Your task to perform on an android device: turn on priority inbox in the gmail app Image 0: 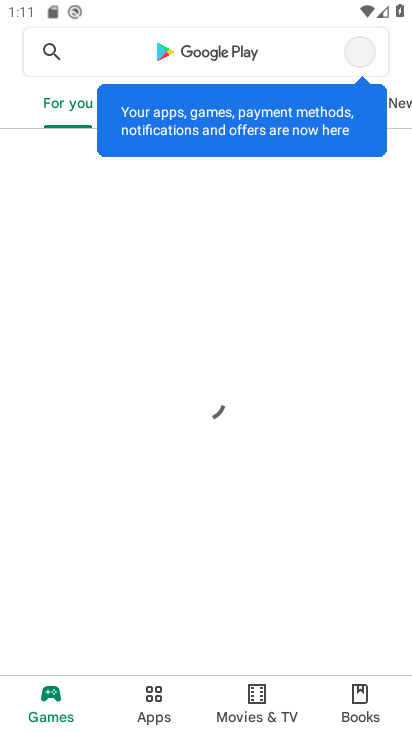
Step 0: press home button
Your task to perform on an android device: turn on priority inbox in the gmail app Image 1: 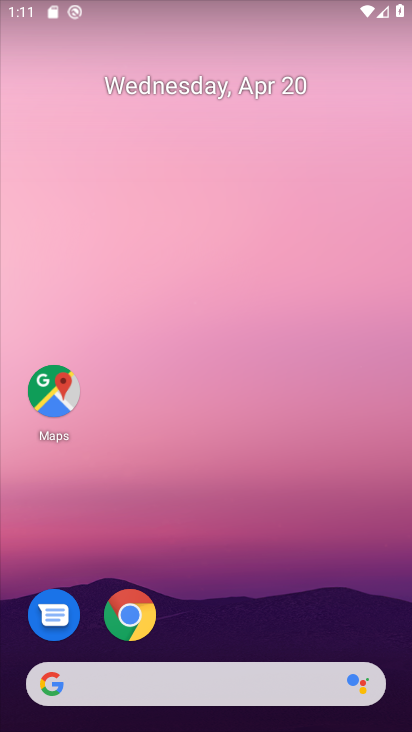
Step 1: drag from (251, 486) to (282, 70)
Your task to perform on an android device: turn on priority inbox in the gmail app Image 2: 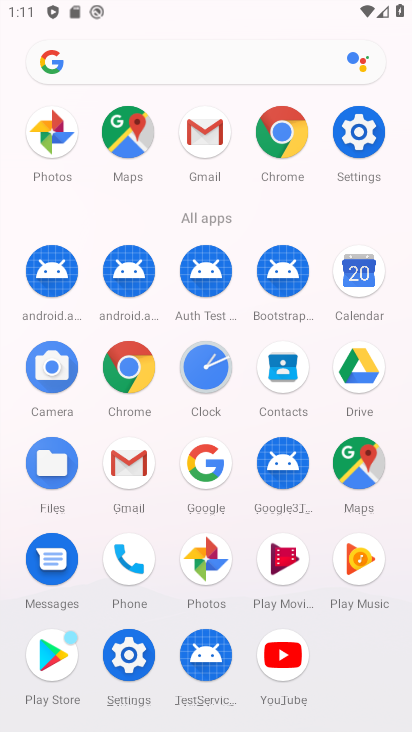
Step 2: click (128, 459)
Your task to perform on an android device: turn on priority inbox in the gmail app Image 3: 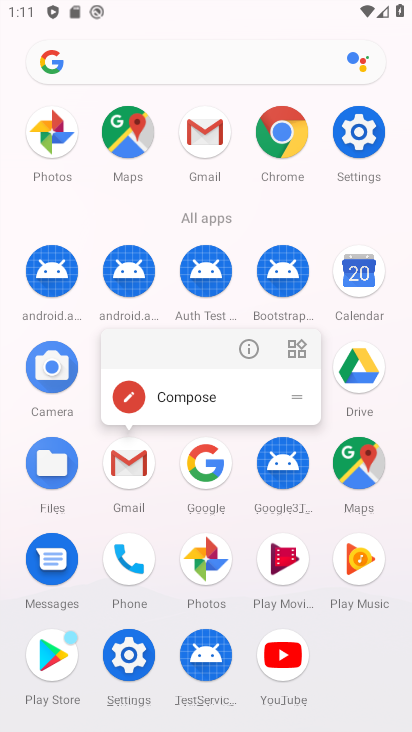
Step 3: click (124, 437)
Your task to perform on an android device: turn on priority inbox in the gmail app Image 4: 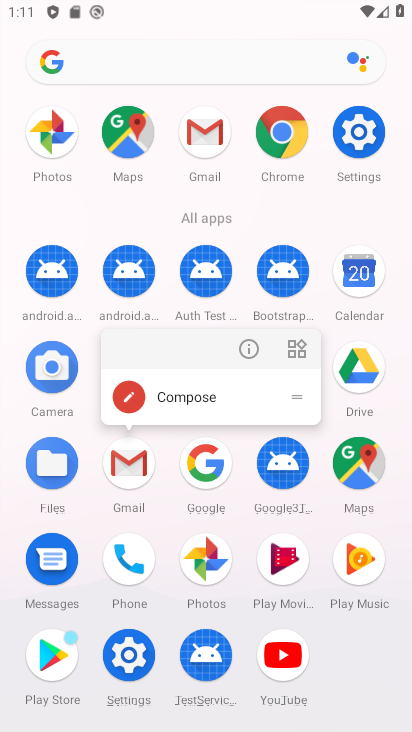
Step 4: click (130, 433)
Your task to perform on an android device: turn on priority inbox in the gmail app Image 5: 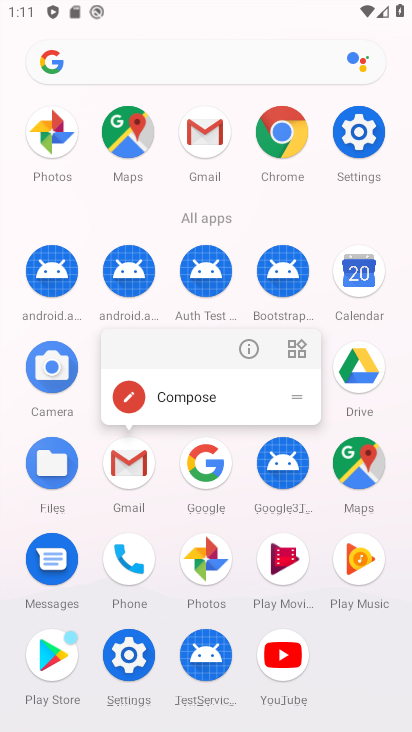
Step 5: click (135, 459)
Your task to perform on an android device: turn on priority inbox in the gmail app Image 6: 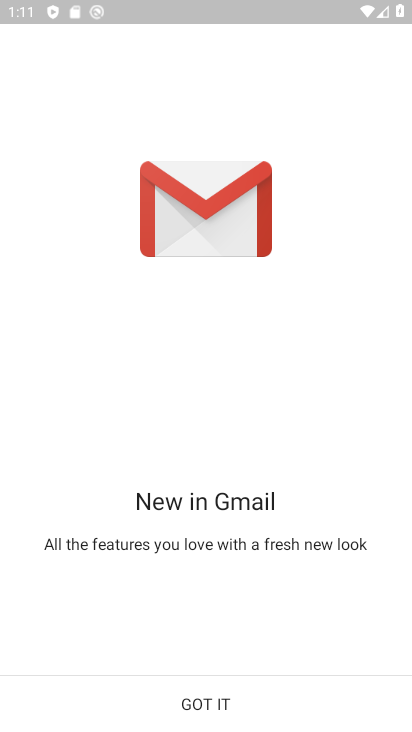
Step 6: click (245, 707)
Your task to perform on an android device: turn on priority inbox in the gmail app Image 7: 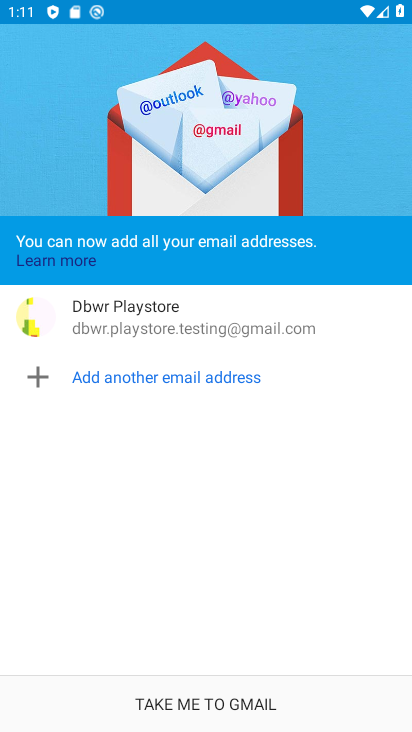
Step 7: click (227, 697)
Your task to perform on an android device: turn on priority inbox in the gmail app Image 8: 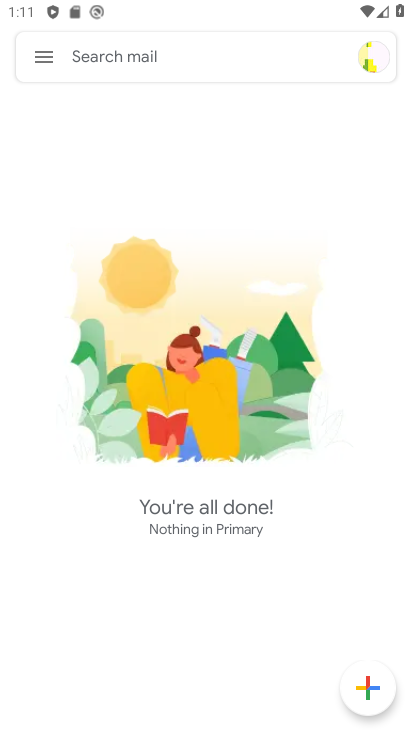
Step 8: click (44, 63)
Your task to perform on an android device: turn on priority inbox in the gmail app Image 9: 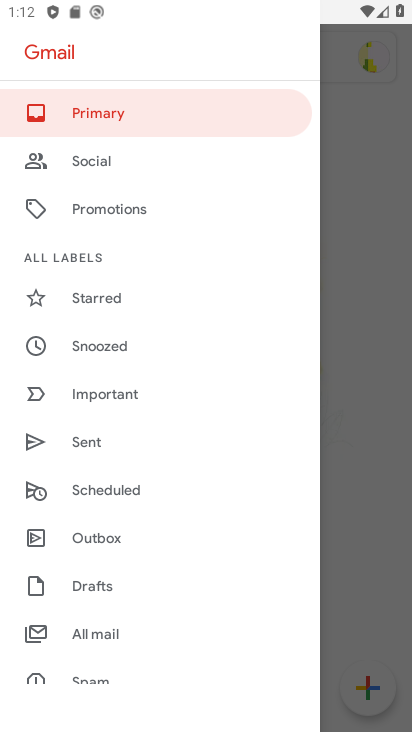
Step 9: drag from (115, 647) to (183, 453)
Your task to perform on an android device: turn on priority inbox in the gmail app Image 10: 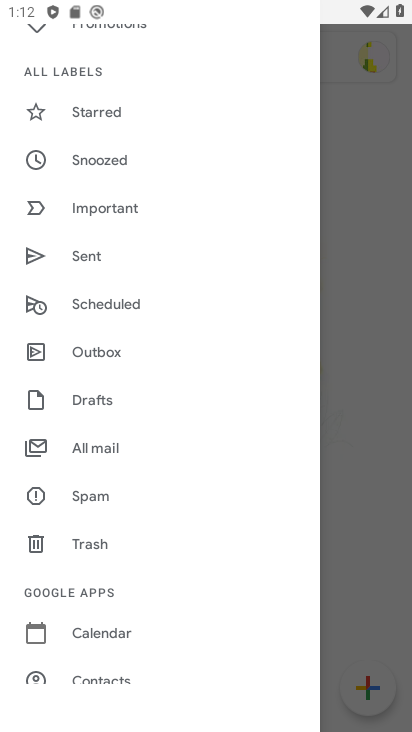
Step 10: drag from (147, 631) to (125, 528)
Your task to perform on an android device: turn on priority inbox in the gmail app Image 11: 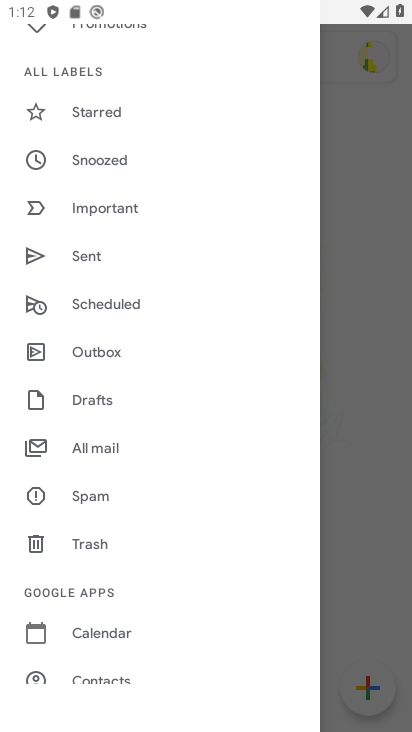
Step 11: drag from (176, 659) to (208, 494)
Your task to perform on an android device: turn on priority inbox in the gmail app Image 12: 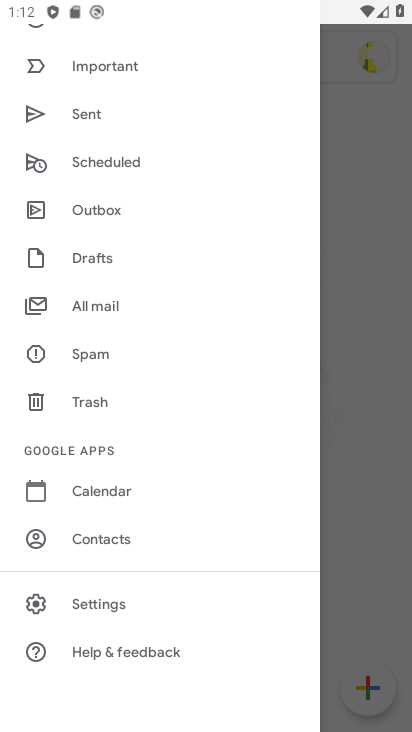
Step 12: click (152, 601)
Your task to perform on an android device: turn on priority inbox in the gmail app Image 13: 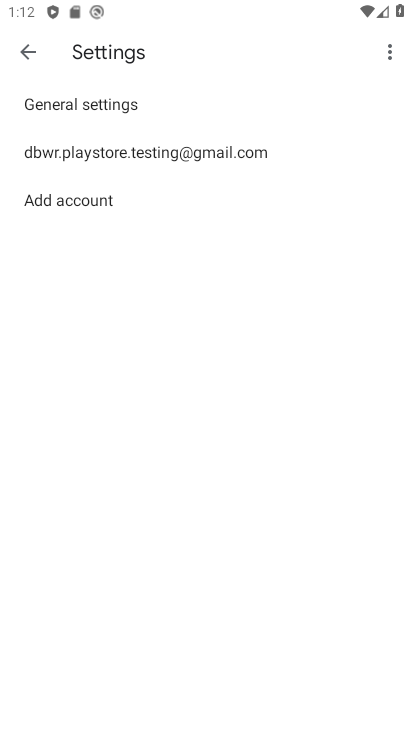
Step 13: click (153, 165)
Your task to perform on an android device: turn on priority inbox in the gmail app Image 14: 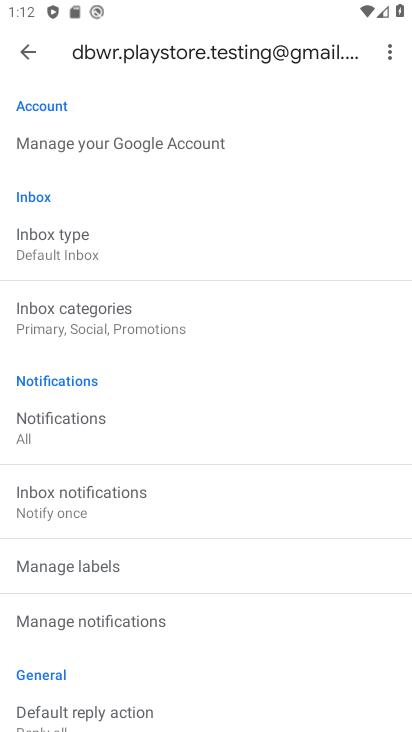
Step 14: click (99, 256)
Your task to perform on an android device: turn on priority inbox in the gmail app Image 15: 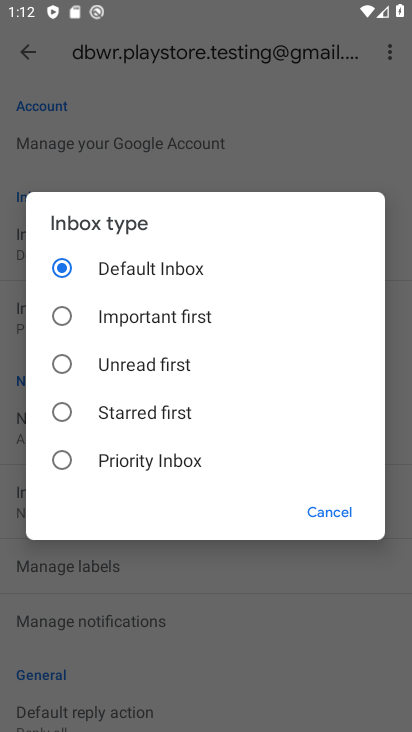
Step 15: click (166, 459)
Your task to perform on an android device: turn on priority inbox in the gmail app Image 16: 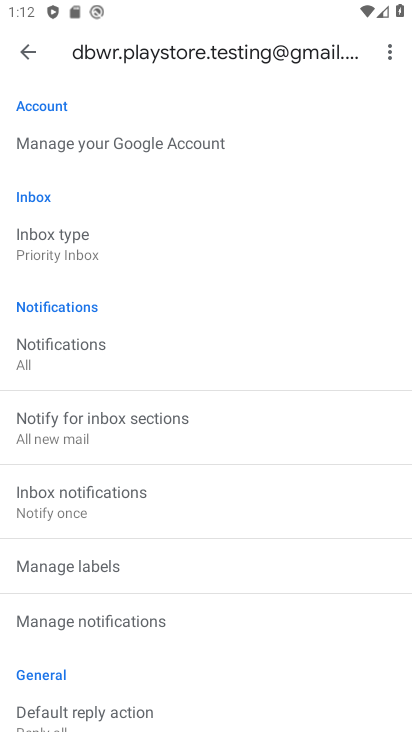
Step 16: task complete